Your task to perform on an android device: turn smart compose on in the gmail app Image 0: 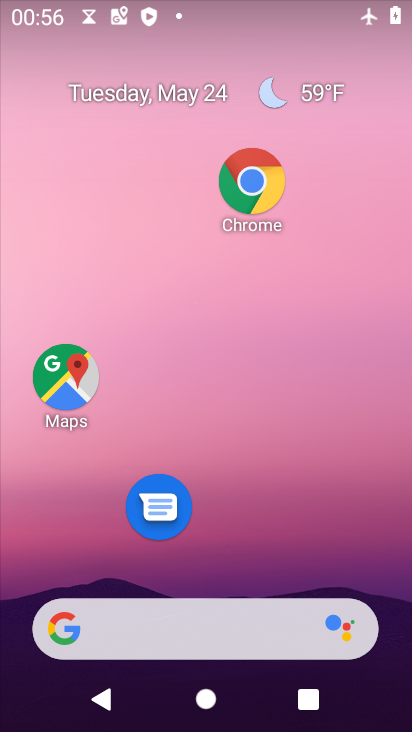
Step 0: drag from (301, 545) to (344, 215)
Your task to perform on an android device: turn smart compose on in the gmail app Image 1: 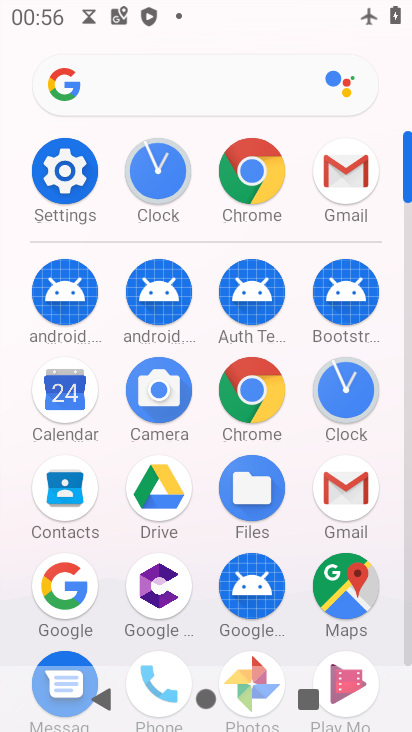
Step 1: click (338, 490)
Your task to perform on an android device: turn smart compose on in the gmail app Image 2: 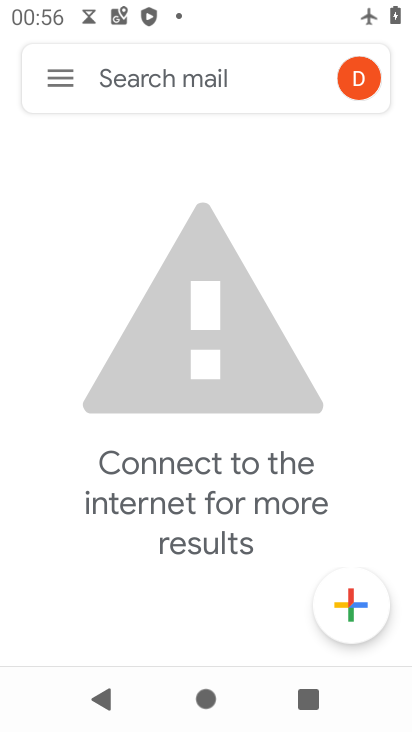
Step 2: click (57, 70)
Your task to perform on an android device: turn smart compose on in the gmail app Image 3: 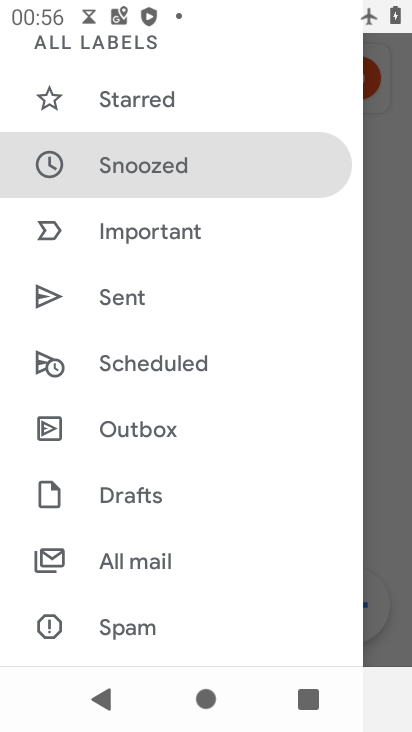
Step 3: drag from (176, 582) to (236, 165)
Your task to perform on an android device: turn smart compose on in the gmail app Image 4: 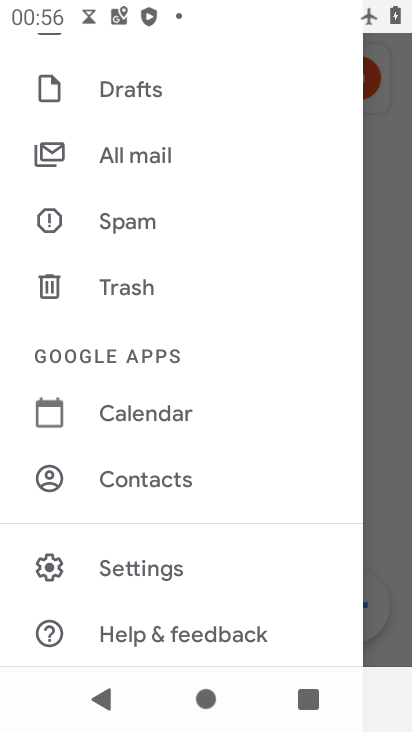
Step 4: click (164, 551)
Your task to perform on an android device: turn smart compose on in the gmail app Image 5: 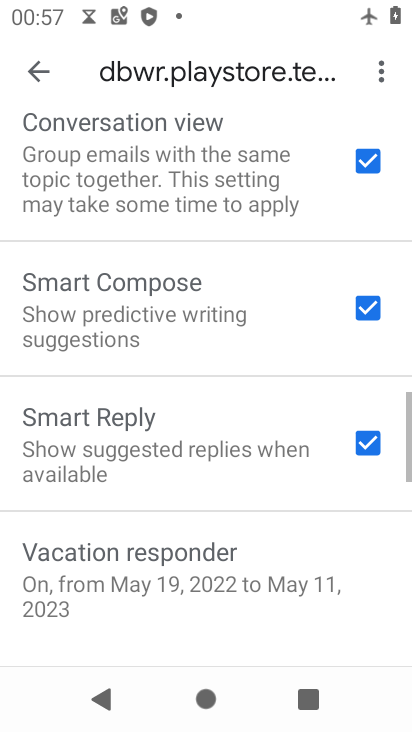
Step 5: task complete